Your task to perform on an android device: choose inbox layout in the gmail app Image 0: 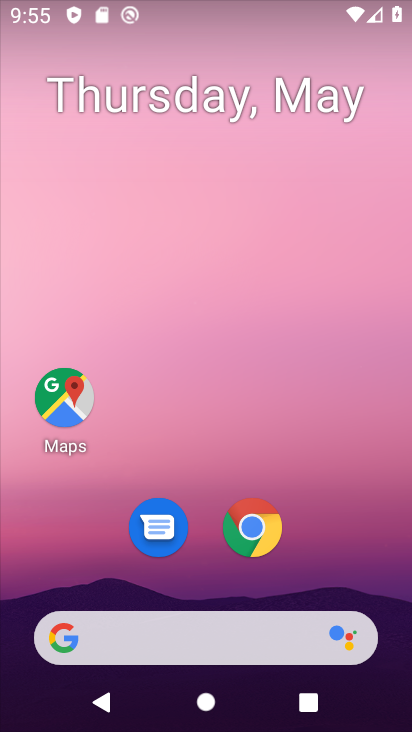
Step 0: drag from (324, 576) to (160, 91)
Your task to perform on an android device: choose inbox layout in the gmail app Image 1: 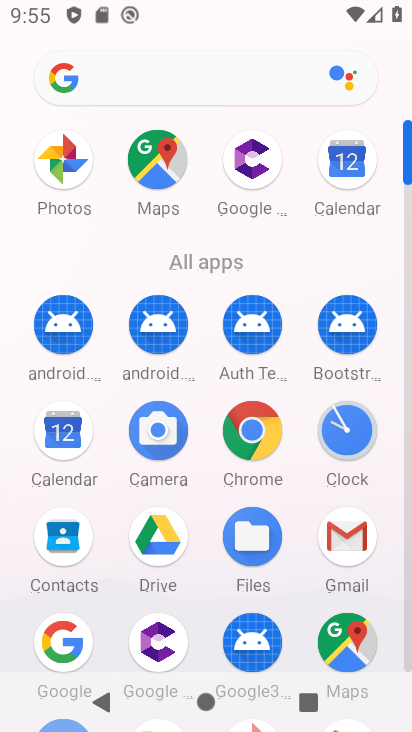
Step 1: click (356, 564)
Your task to perform on an android device: choose inbox layout in the gmail app Image 2: 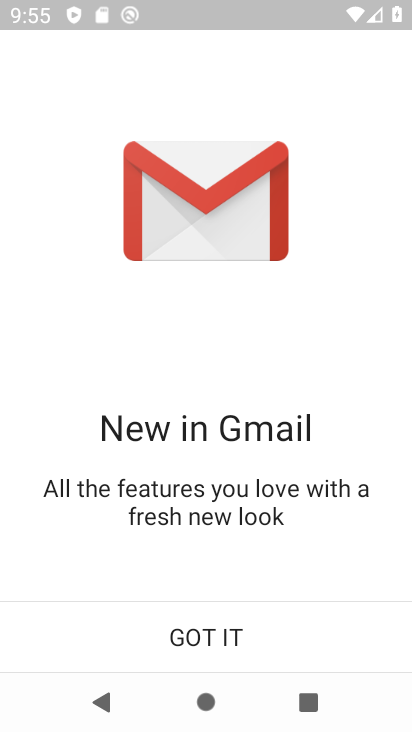
Step 2: click (197, 645)
Your task to perform on an android device: choose inbox layout in the gmail app Image 3: 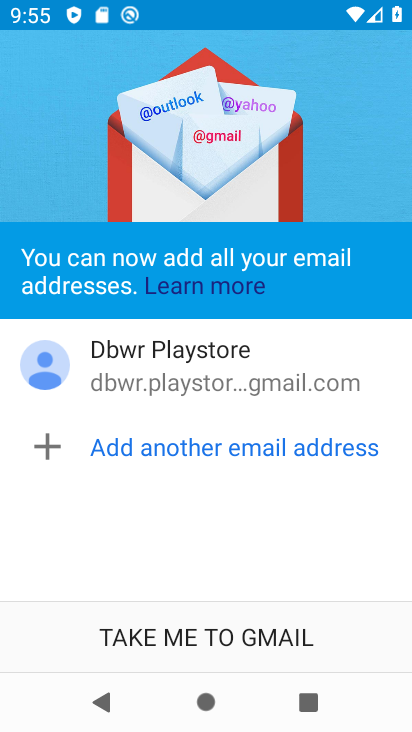
Step 3: click (204, 639)
Your task to perform on an android device: choose inbox layout in the gmail app Image 4: 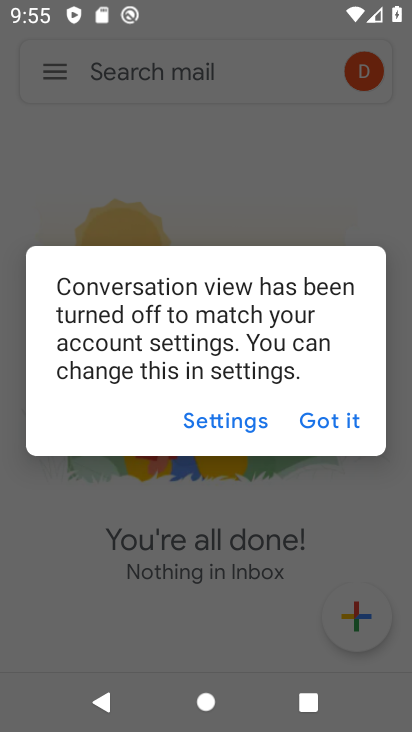
Step 4: click (327, 422)
Your task to perform on an android device: choose inbox layout in the gmail app Image 5: 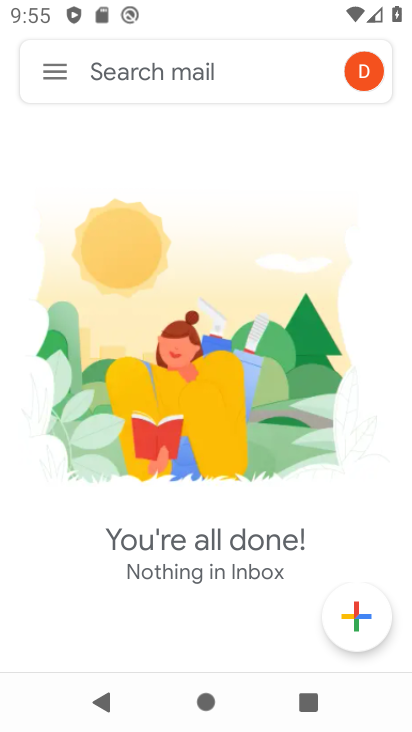
Step 5: click (65, 60)
Your task to perform on an android device: choose inbox layout in the gmail app Image 6: 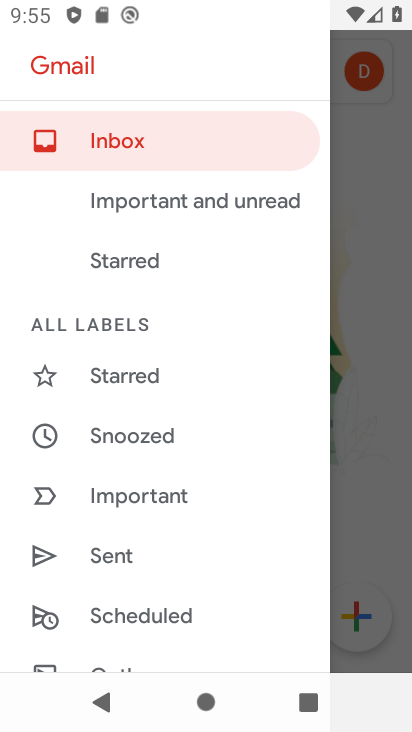
Step 6: drag from (217, 458) to (217, 136)
Your task to perform on an android device: choose inbox layout in the gmail app Image 7: 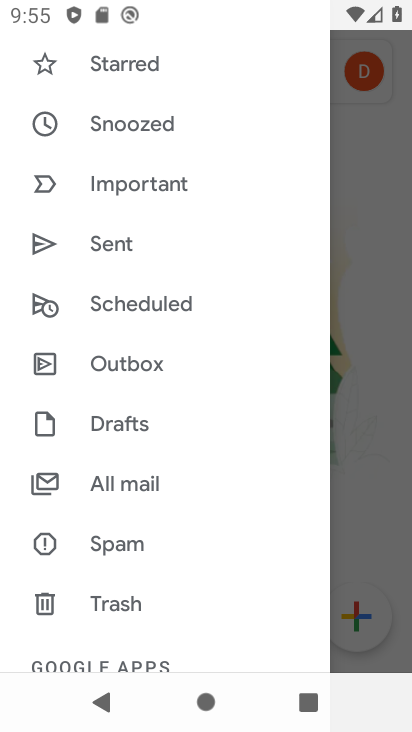
Step 7: drag from (122, 646) to (139, 251)
Your task to perform on an android device: choose inbox layout in the gmail app Image 8: 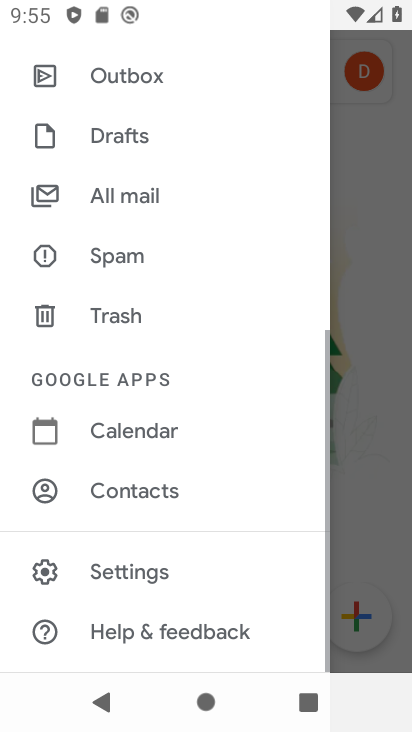
Step 8: drag from (139, 634) to (170, 260)
Your task to perform on an android device: choose inbox layout in the gmail app Image 9: 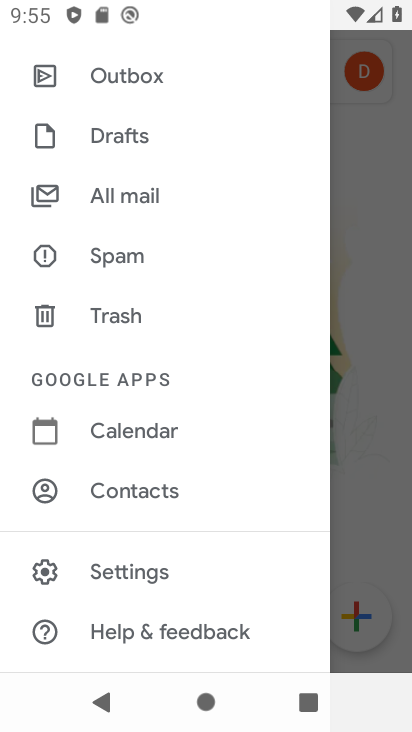
Step 9: drag from (246, 537) to (207, 228)
Your task to perform on an android device: choose inbox layout in the gmail app Image 10: 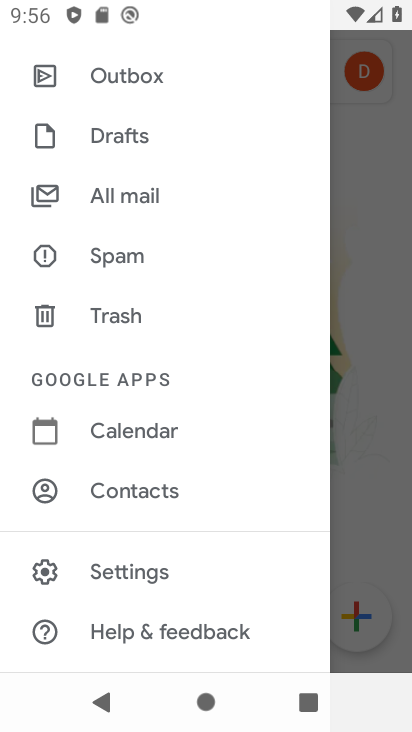
Step 10: click (131, 574)
Your task to perform on an android device: choose inbox layout in the gmail app Image 11: 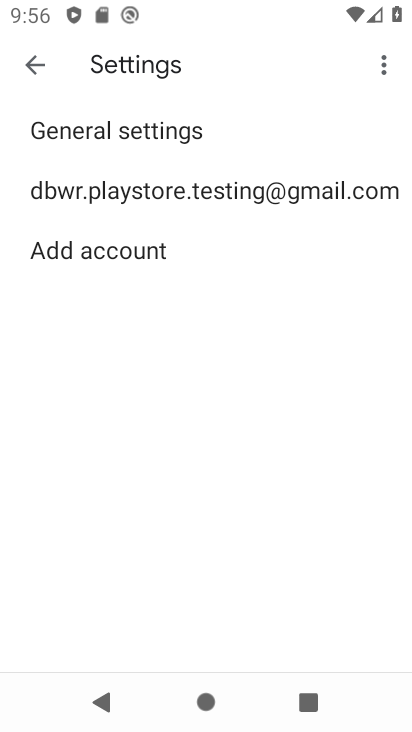
Step 11: click (214, 200)
Your task to perform on an android device: choose inbox layout in the gmail app Image 12: 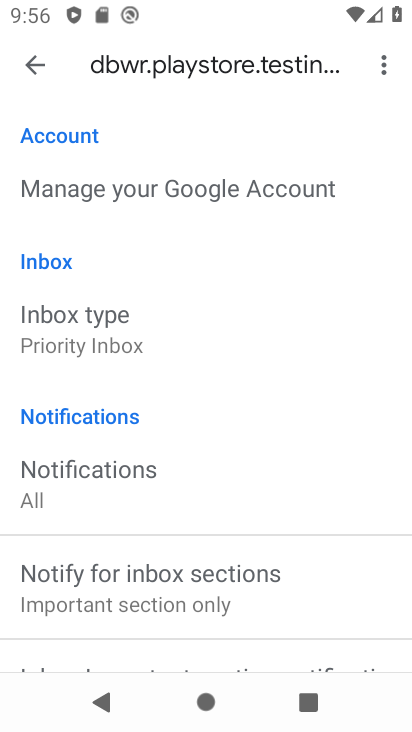
Step 12: click (81, 325)
Your task to perform on an android device: choose inbox layout in the gmail app Image 13: 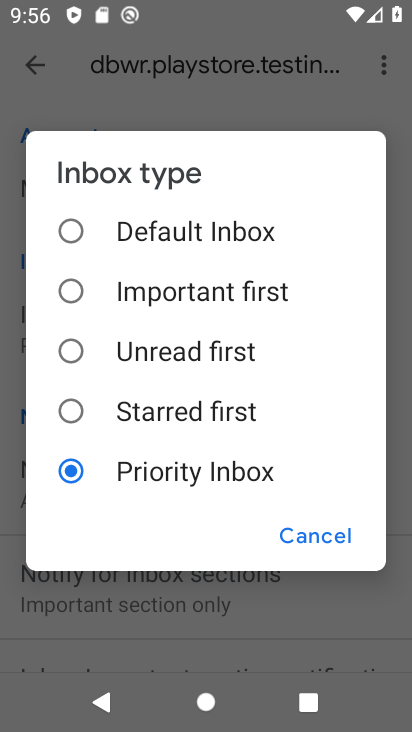
Step 13: click (69, 242)
Your task to perform on an android device: choose inbox layout in the gmail app Image 14: 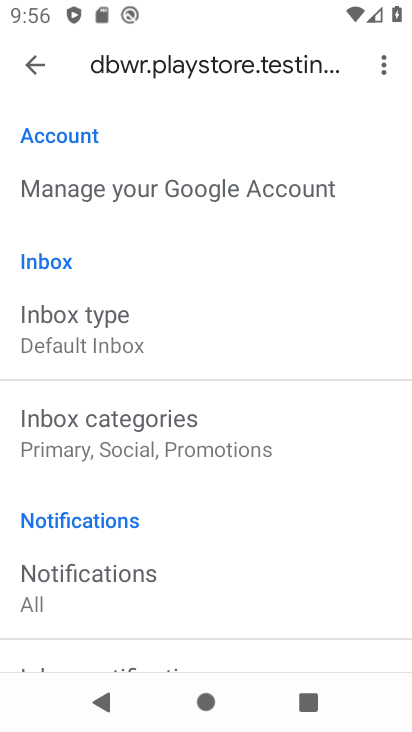
Step 14: task complete